Your task to perform on an android device: open a bookmark in the chrome app Image 0: 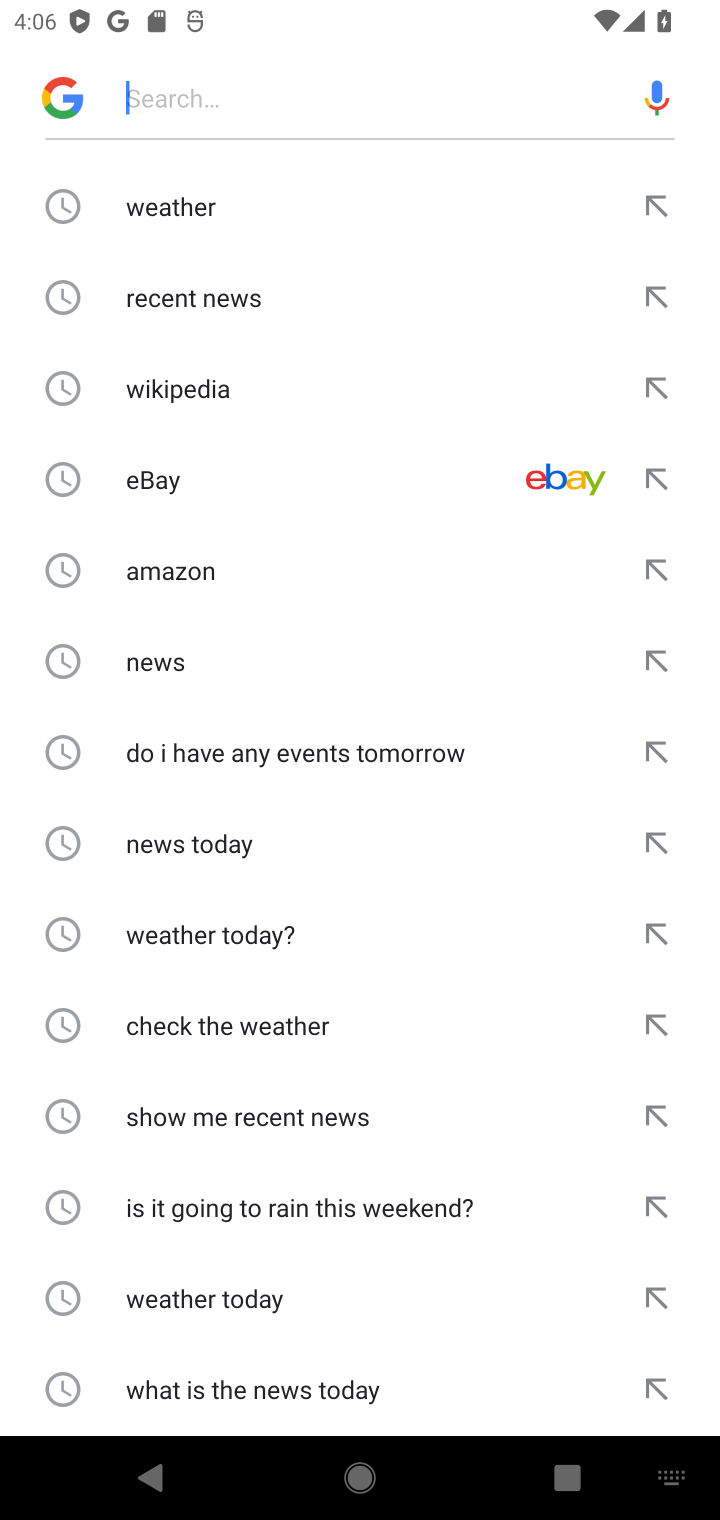
Step 0: press home button
Your task to perform on an android device: open a bookmark in the chrome app Image 1: 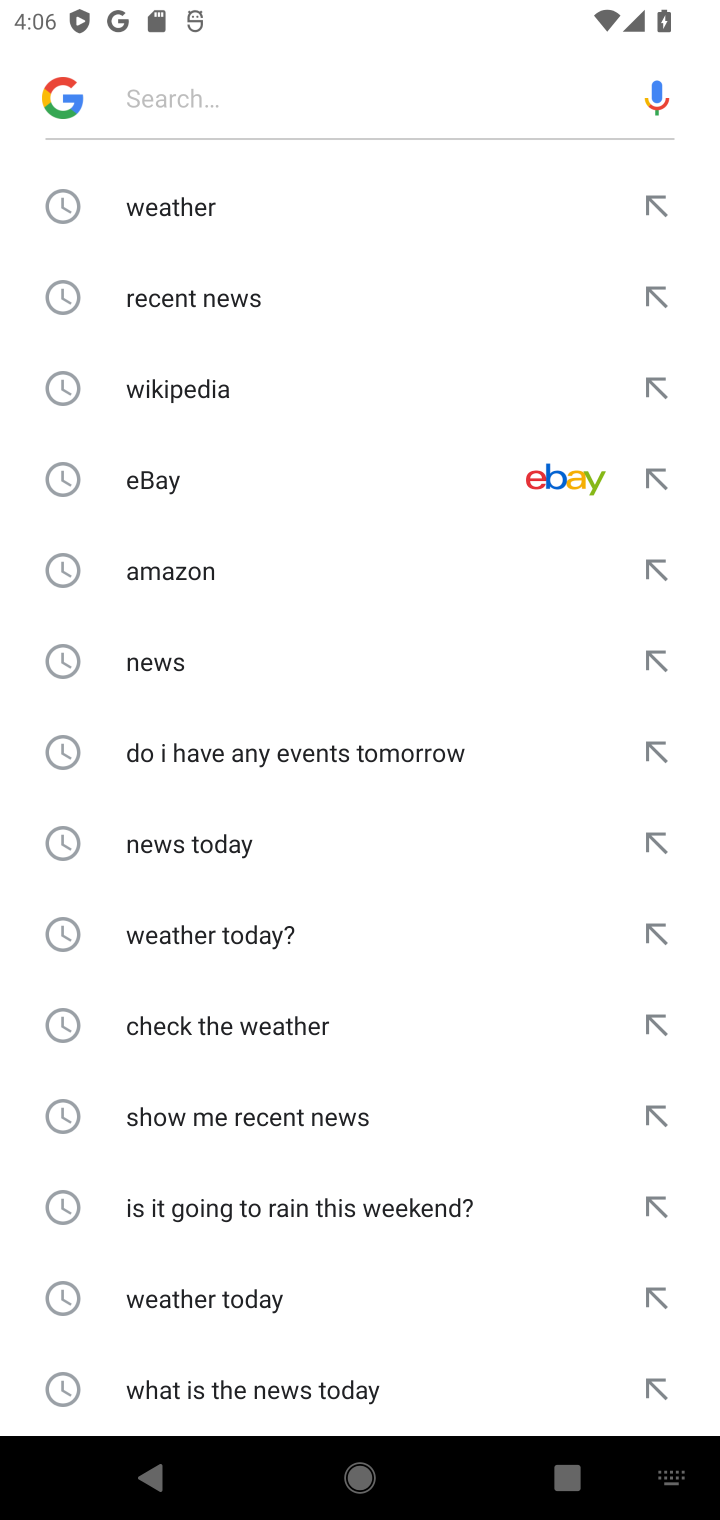
Step 1: press home button
Your task to perform on an android device: open a bookmark in the chrome app Image 2: 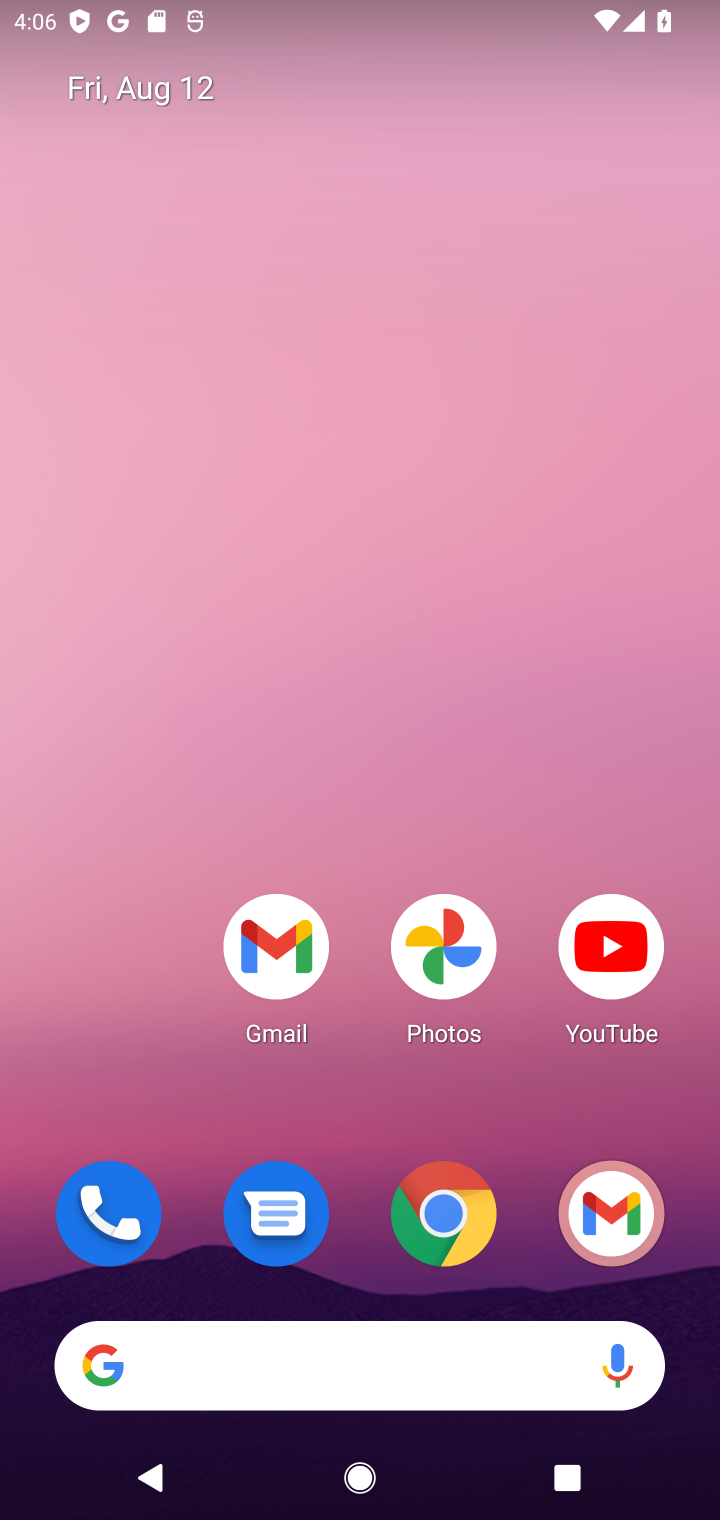
Step 2: drag from (200, 1034) to (398, 36)
Your task to perform on an android device: open a bookmark in the chrome app Image 3: 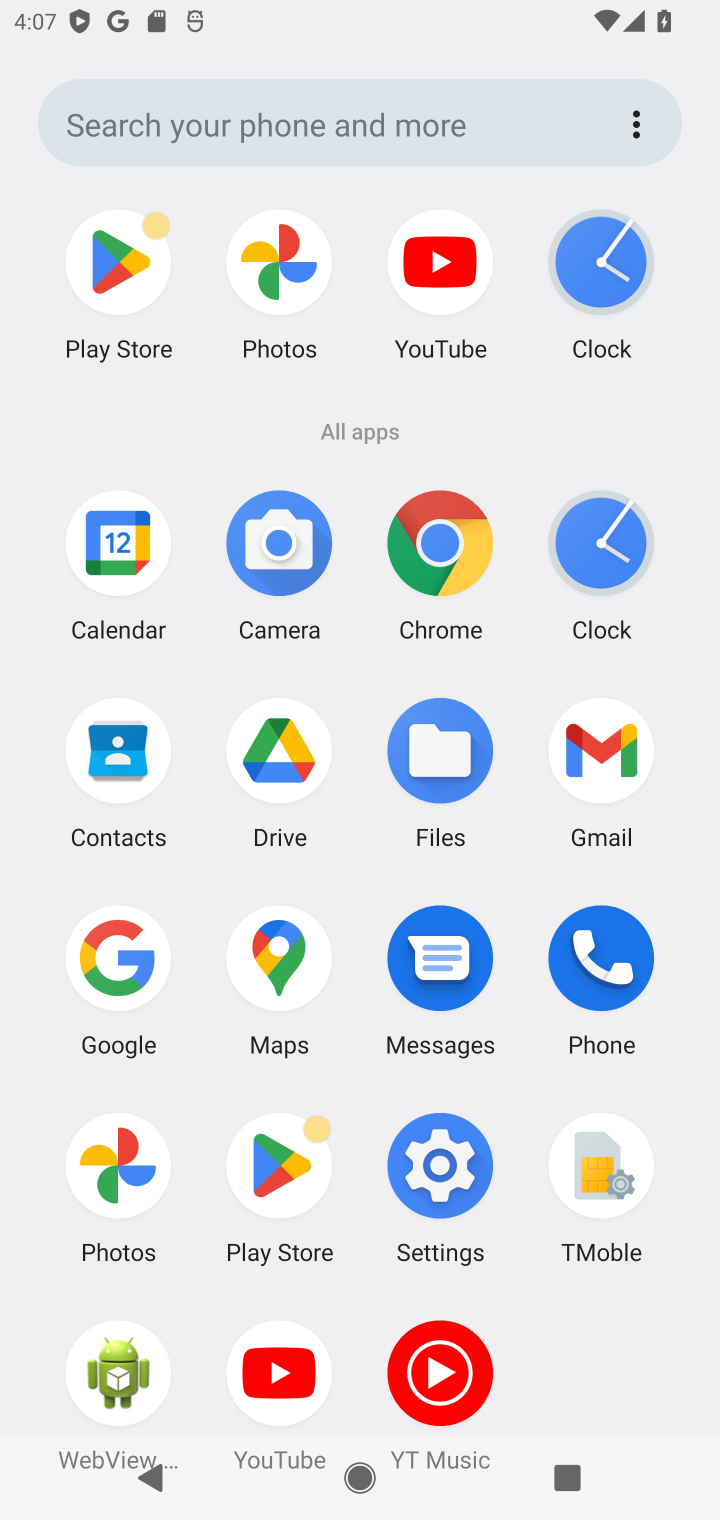
Step 3: click (447, 544)
Your task to perform on an android device: open a bookmark in the chrome app Image 4: 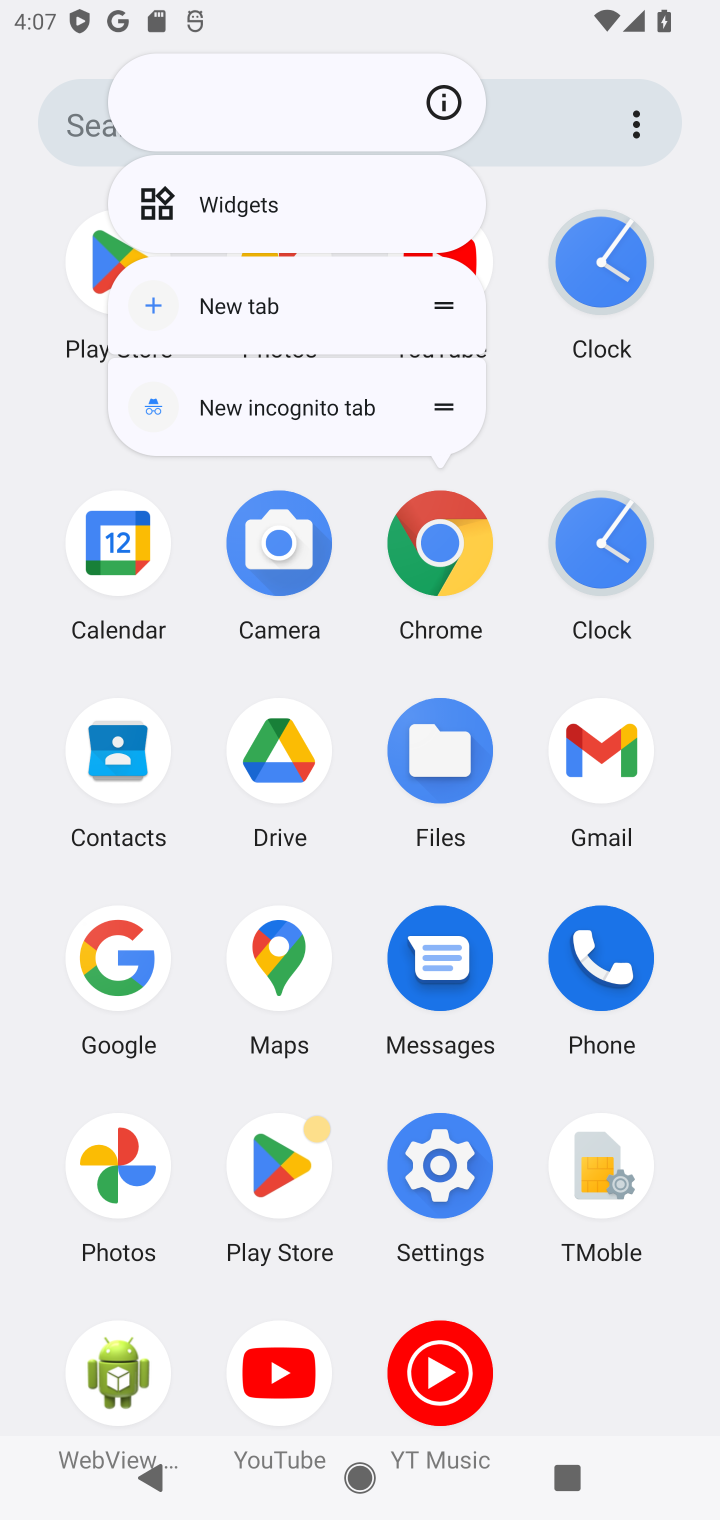
Step 4: click (458, 565)
Your task to perform on an android device: open a bookmark in the chrome app Image 5: 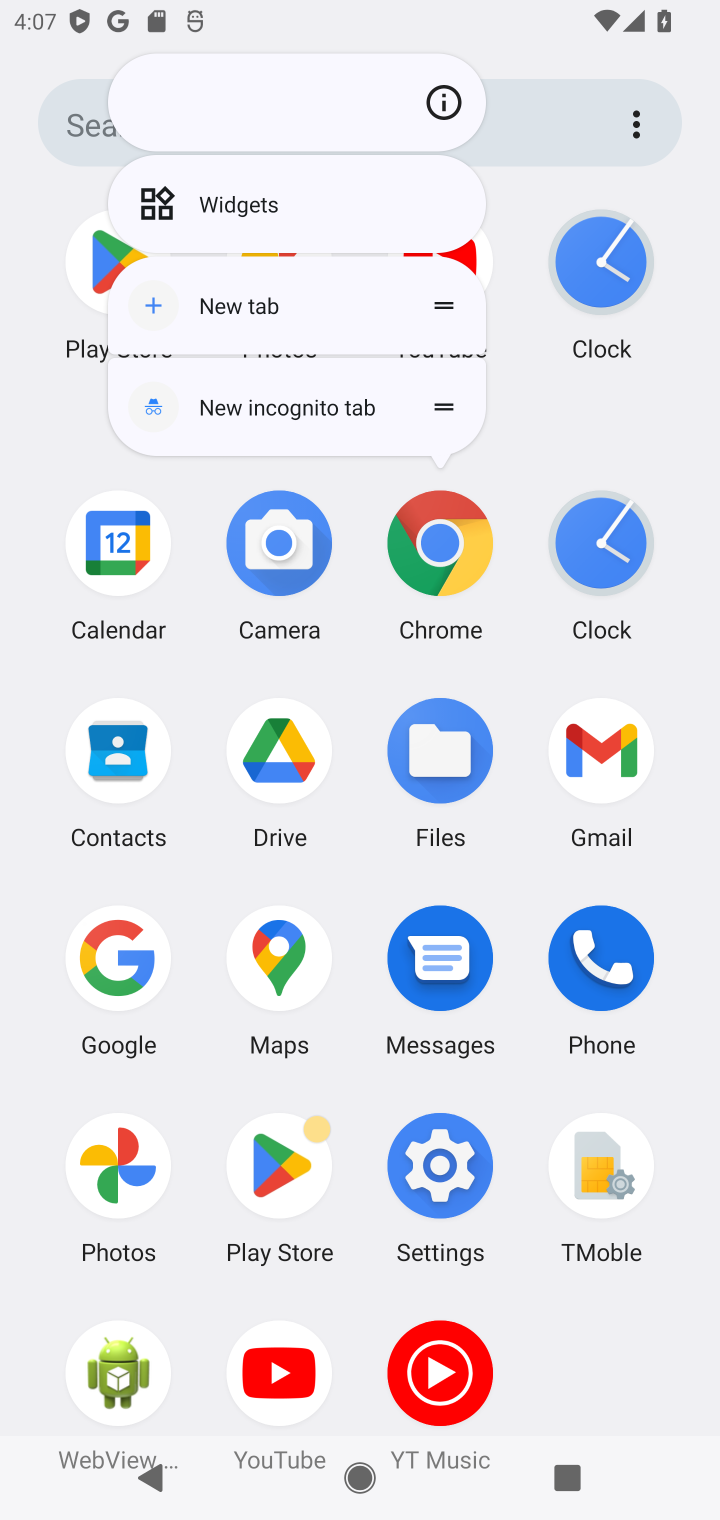
Step 5: click (434, 545)
Your task to perform on an android device: open a bookmark in the chrome app Image 6: 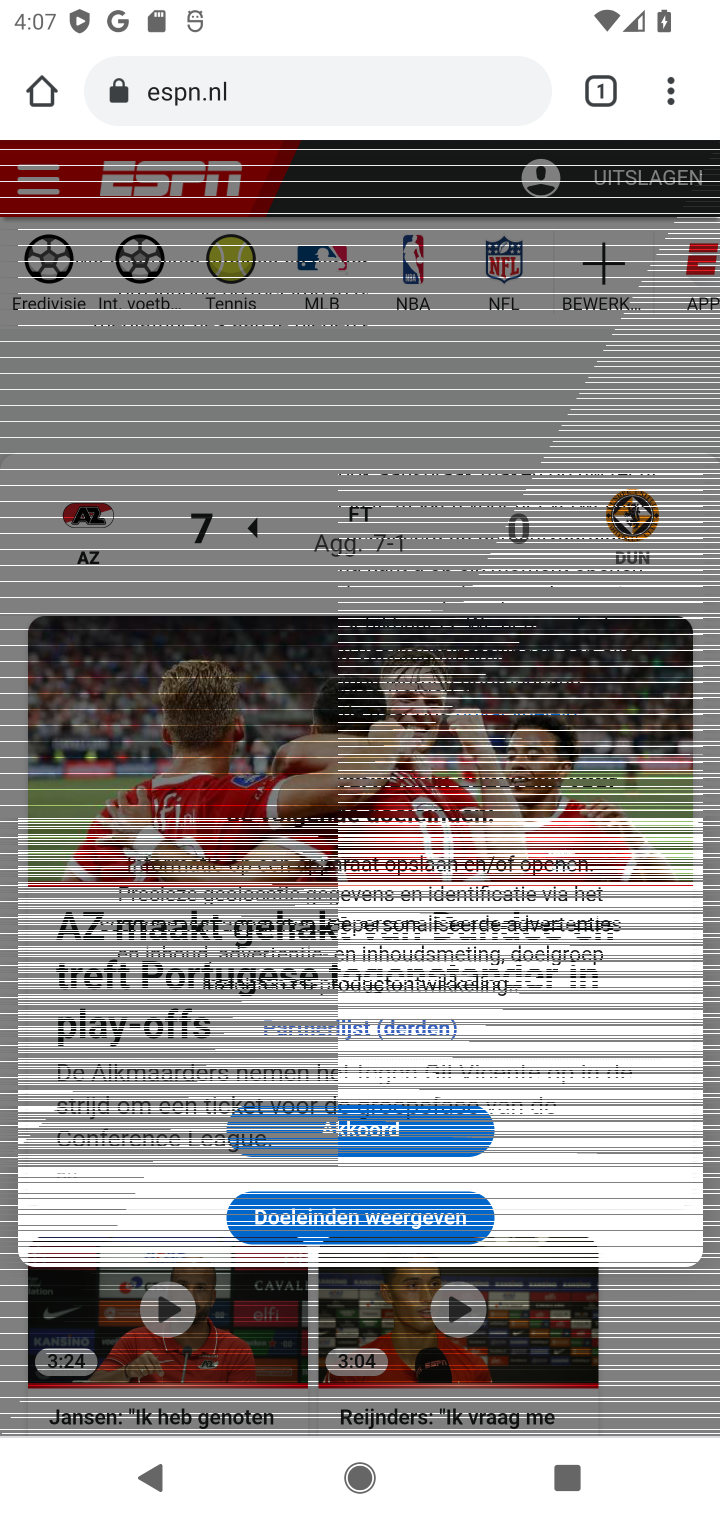
Step 6: drag from (680, 103) to (374, 523)
Your task to perform on an android device: open a bookmark in the chrome app Image 7: 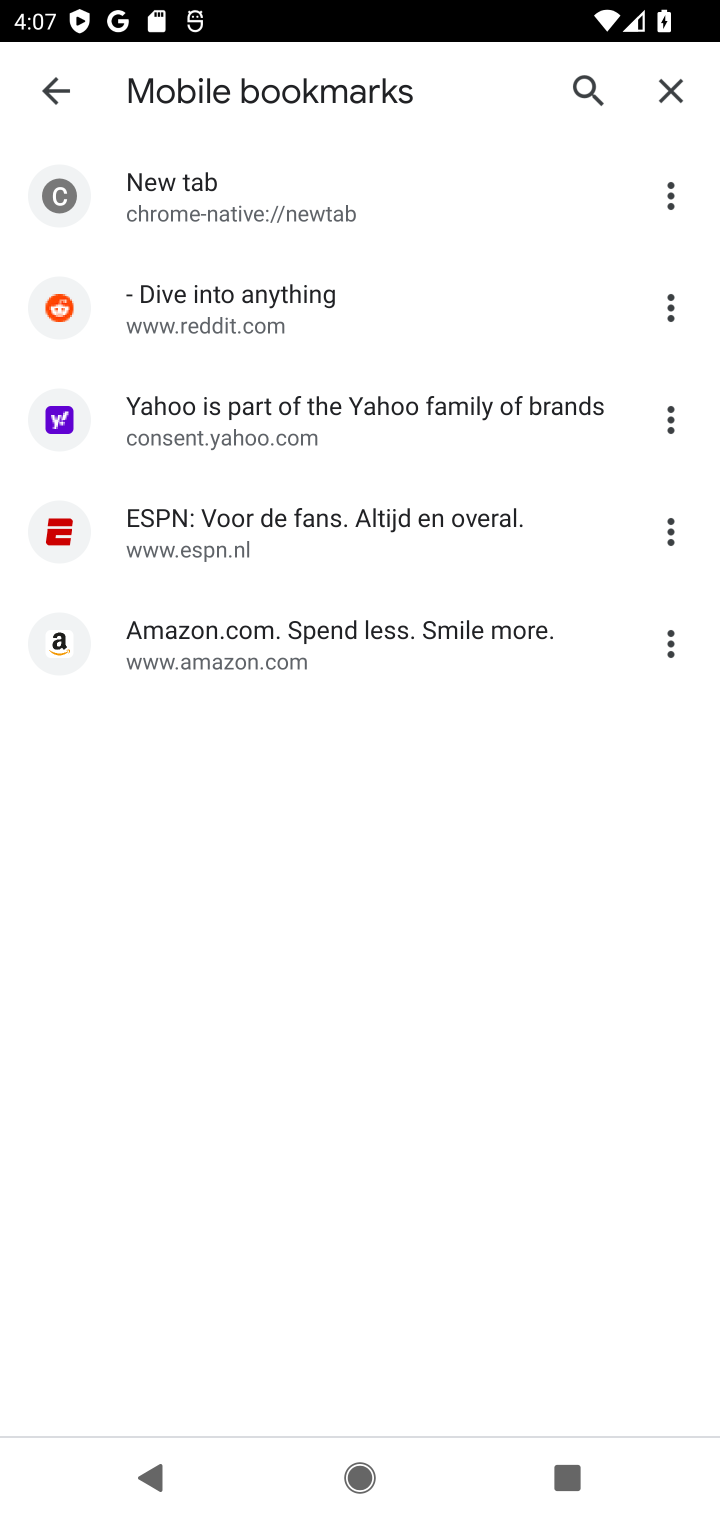
Step 7: click (274, 318)
Your task to perform on an android device: open a bookmark in the chrome app Image 8: 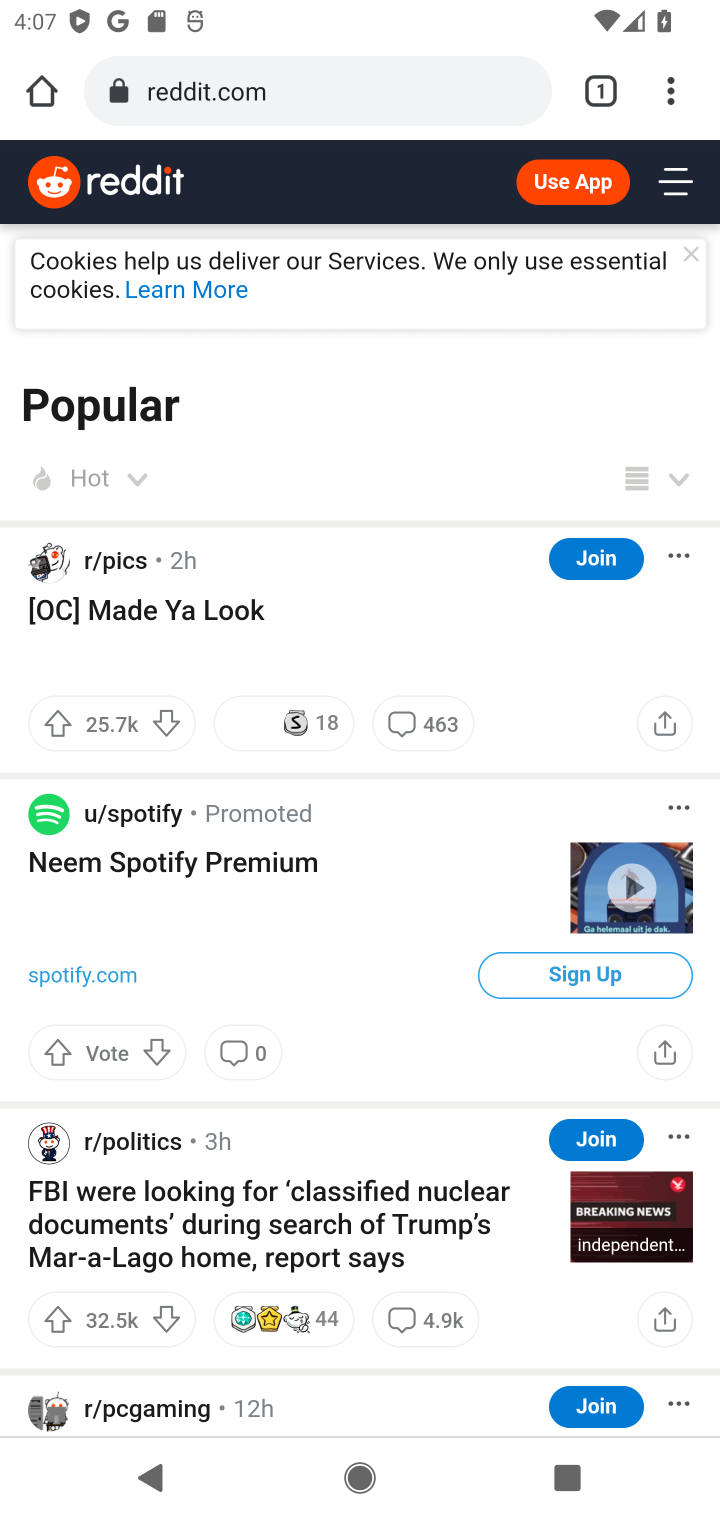
Step 8: task complete